Your task to perform on an android device: set an alarm Image 0: 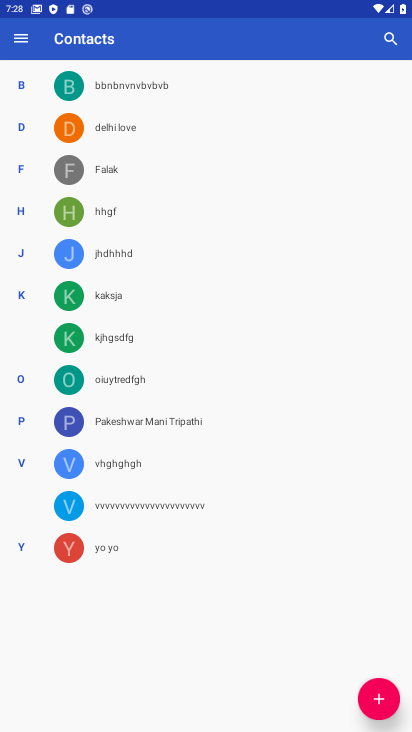
Step 0: press home button
Your task to perform on an android device: set an alarm Image 1: 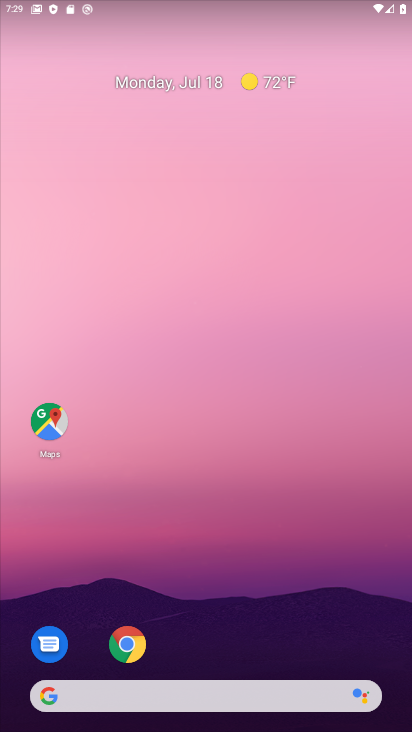
Step 1: drag from (286, 648) to (155, 2)
Your task to perform on an android device: set an alarm Image 2: 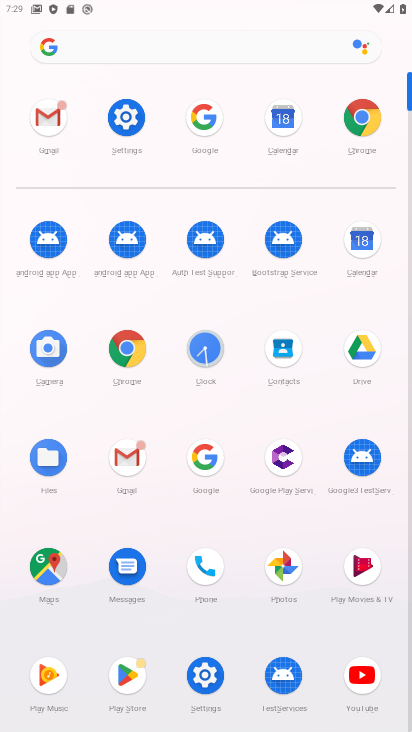
Step 2: click (214, 352)
Your task to perform on an android device: set an alarm Image 3: 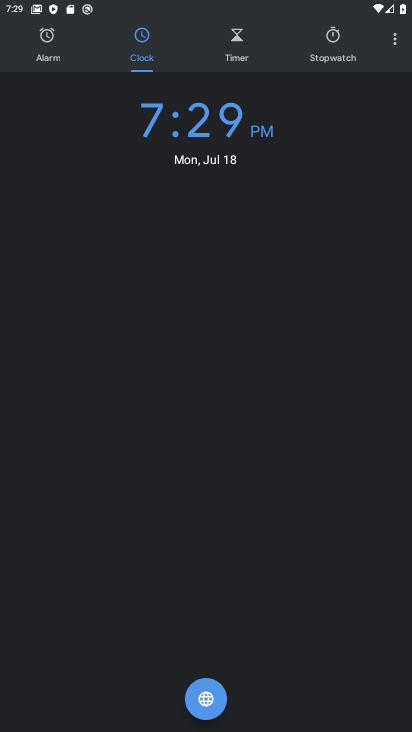
Step 3: click (49, 40)
Your task to perform on an android device: set an alarm Image 4: 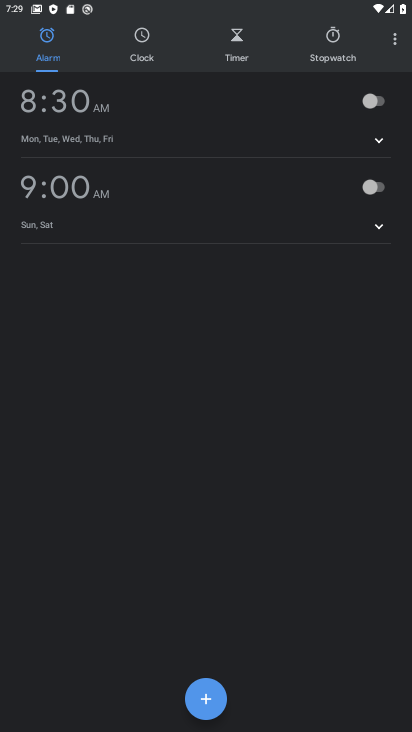
Step 4: click (378, 109)
Your task to perform on an android device: set an alarm Image 5: 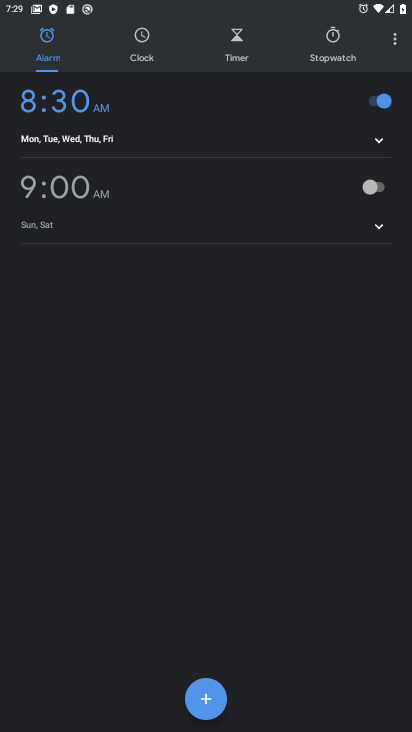
Step 5: task complete